Your task to perform on an android device: open wifi settings Image 0: 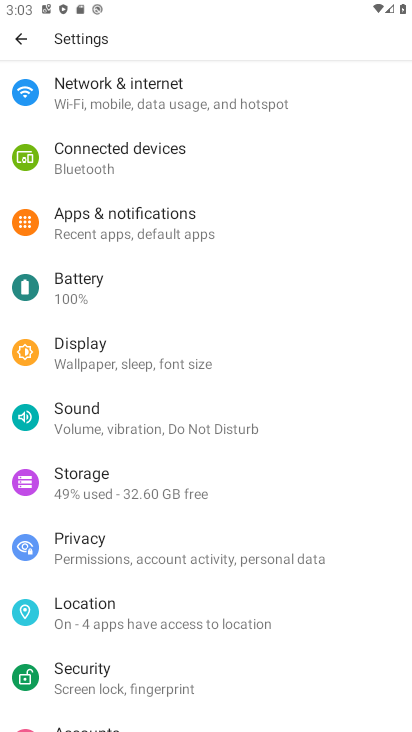
Step 0: drag from (153, 601) to (224, 279)
Your task to perform on an android device: open wifi settings Image 1: 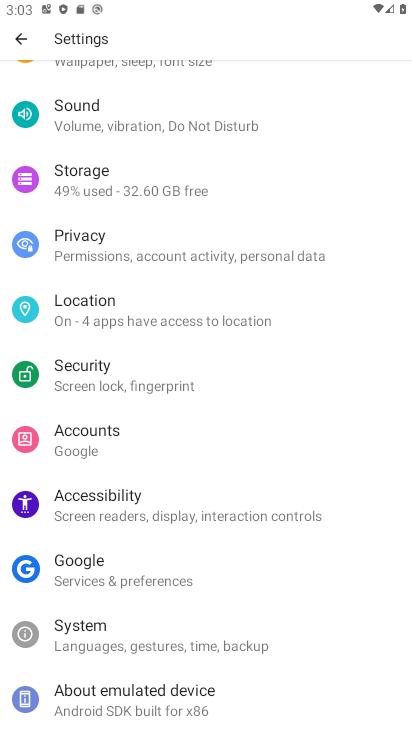
Step 1: drag from (145, 636) to (181, 430)
Your task to perform on an android device: open wifi settings Image 2: 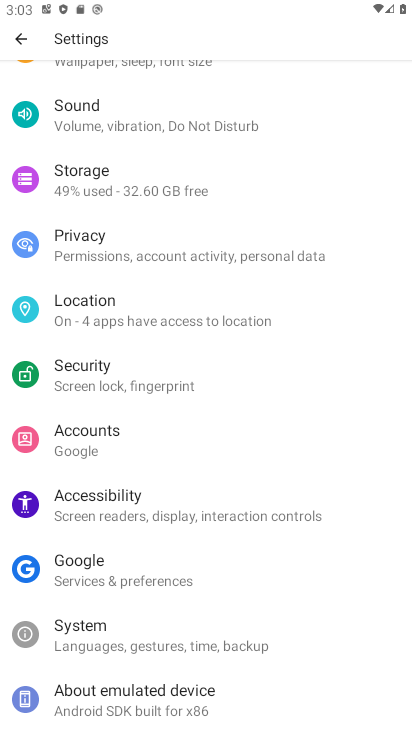
Step 2: drag from (197, 210) to (178, 687)
Your task to perform on an android device: open wifi settings Image 3: 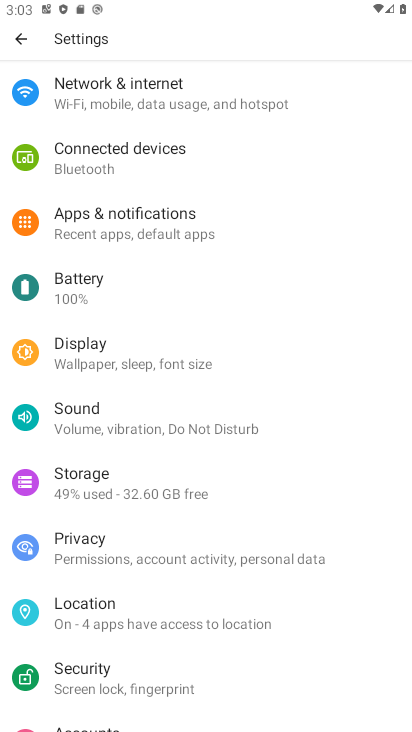
Step 3: drag from (211, 218) to (291, 718)
Your task to perform on an android device: open wifi settings Image 4: 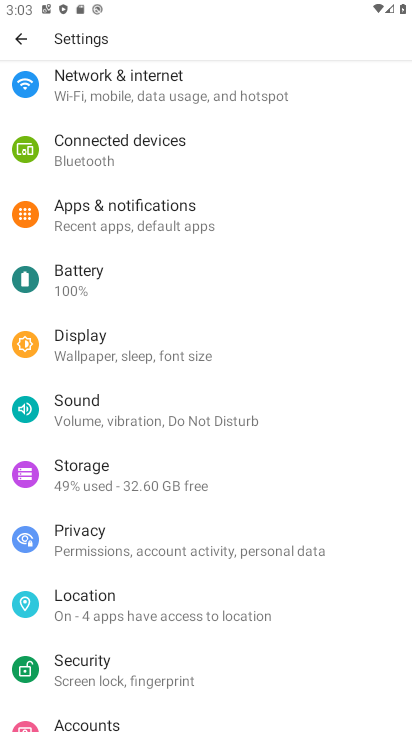
Step 4: click (142, 100)
Your task to perform on an android device: open wifi settings Image 5: 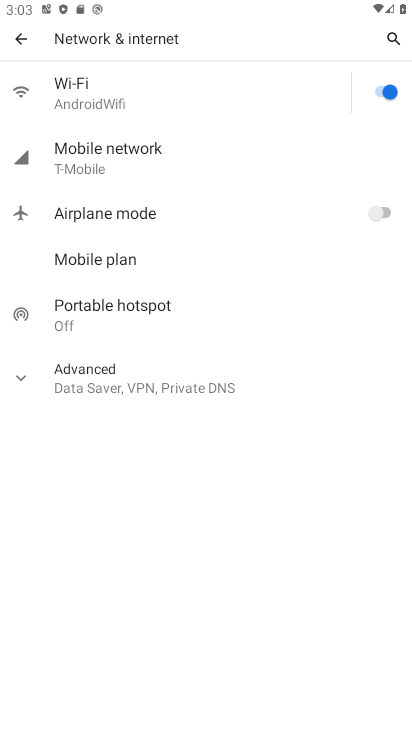
Step 5: task complete